Your task to perform on an android device: Open the calendar app, open the side menu, and click the "Day" option Image 0: 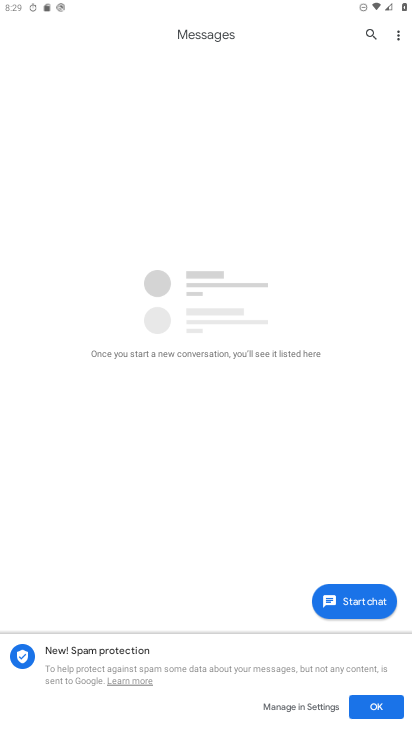
Step 0: press home button
Your task to perform on an android device: Open the calendar app, open the side menu, and click the "Day" option Image 1: 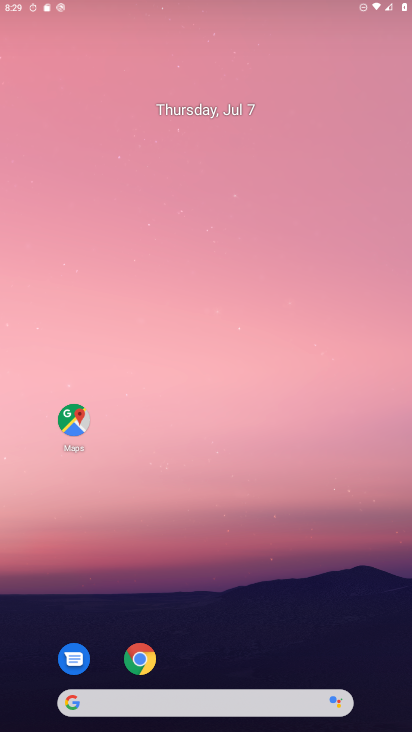
Step 1: drag from (397, 673) to (261, 0)
Your task to perform on an android device: Open the calendar app, open the side menu, and click the "Day" option Image 2: 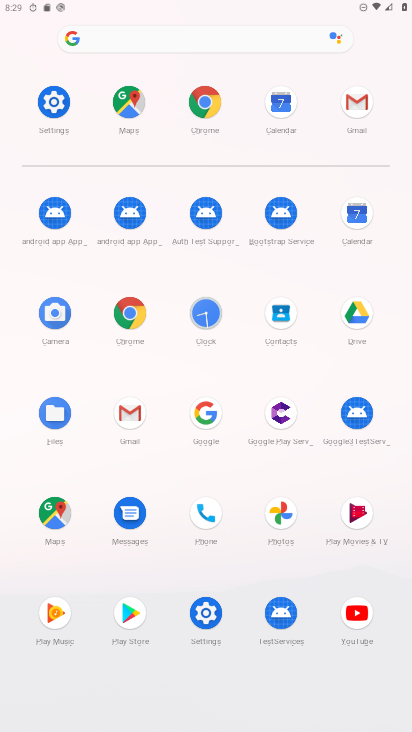
Step 2: click (355, 236)
Your task to perform on an android device: Open the calendar app, open the side menu, and click the "Day" option Image 3: 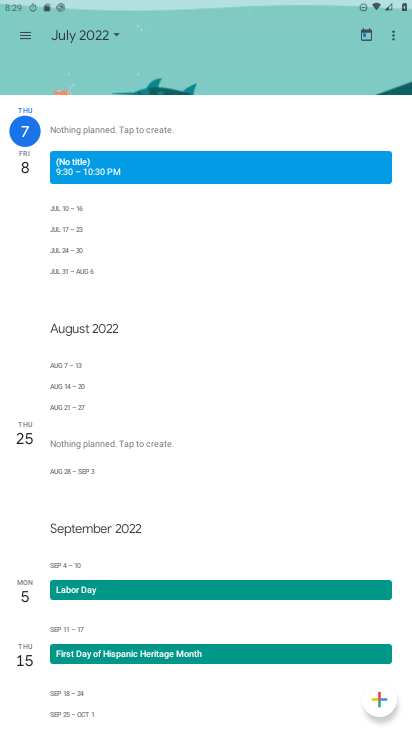
Step 3: click (21, 35)
Your task to perform on an android device: Open the calendar app, open the side menu, and click the "Day" option Image 4: 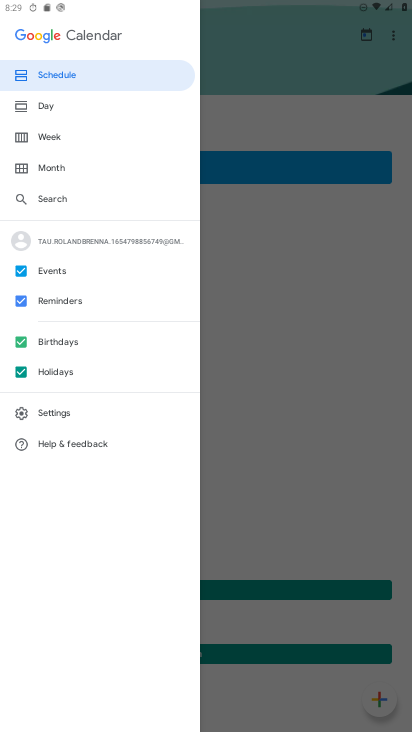
Step 4: click (54, 106)
Your task to perform on an android device: Open the calendar app, open the side menu, and click the "Day" option Image 5: 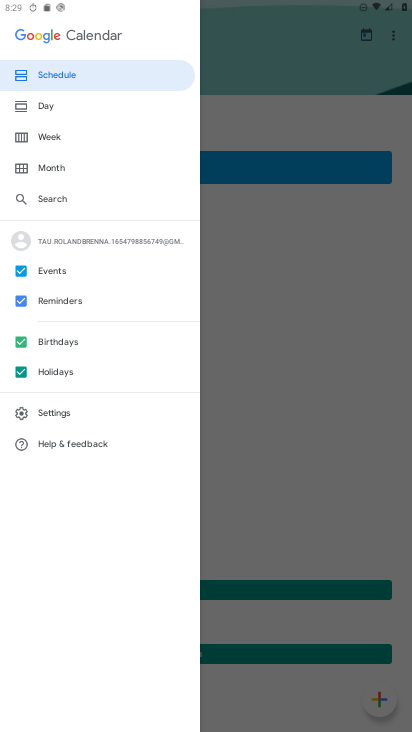
Step 5: click (36, 106)
Your task to perform on an android device: Open the calendar app, open the side menu, and click the "Day" option Image 6: 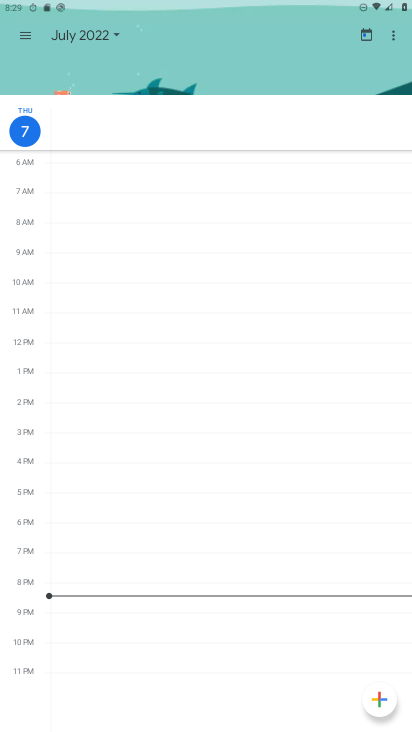
Step 6: task complete